Your task to perform on an android device: Open battery settings Image 0: 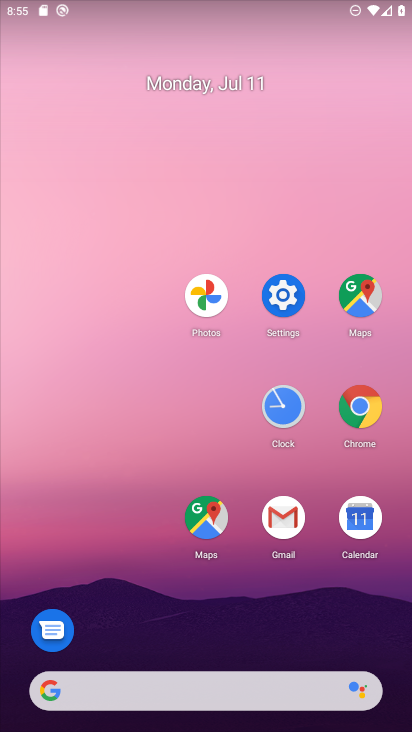
Step 0: click (284, 284)
Your task to perform on an android device: Open battery settings Image 1: 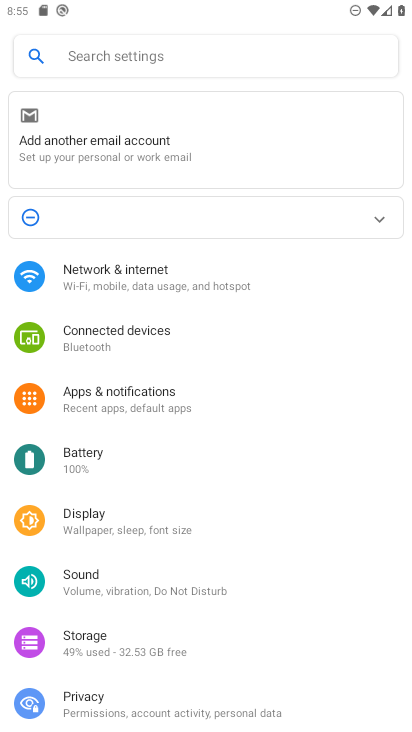
Step 1: drag from (162, 596) to (171, 278)
Your task to perform on an android device: Open battery settings Image 2: 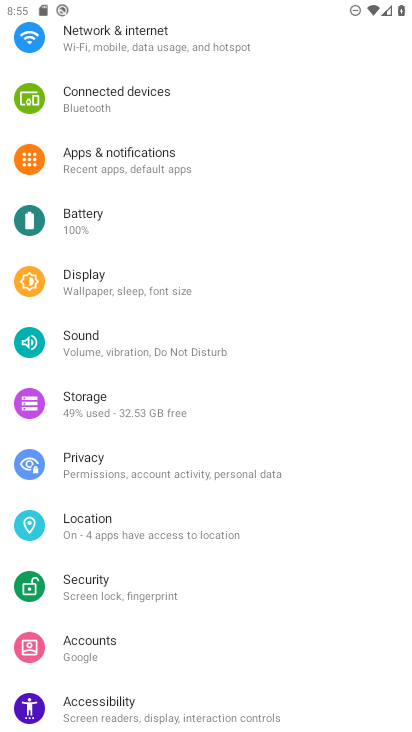
Step 2: click (118, 214)
Your task to perform on an android device: Open battery settings Image 3: 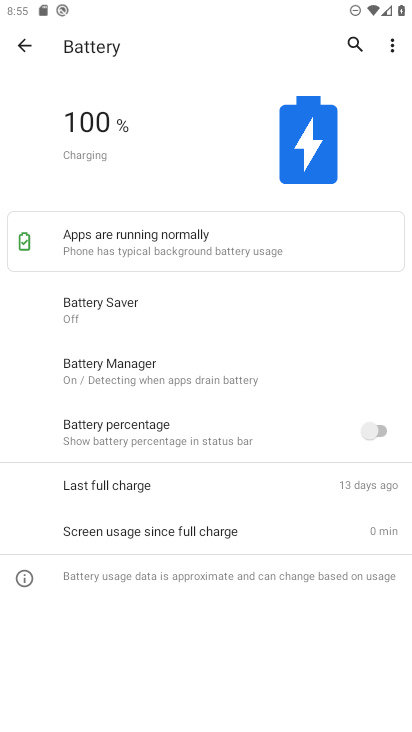
Step 3: task complete